Your task to perform on an android device: toggle data saver in the chrome app Image 0: 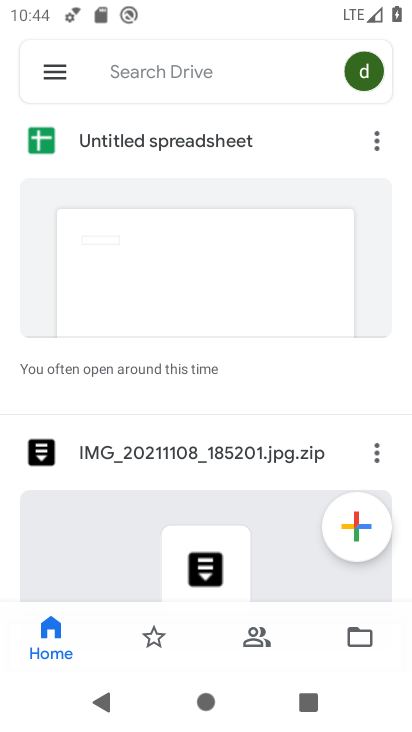
Step 0: press home button
Your task to perform on an android device: toggle data saver in the chrome app Image 1: 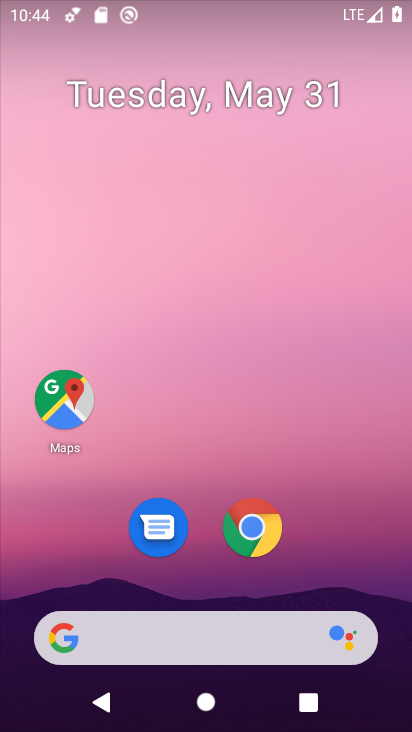
Step 1: click (241, 529)
Your task to perform on an android device: toggle data saver in the chrome app Image 2: 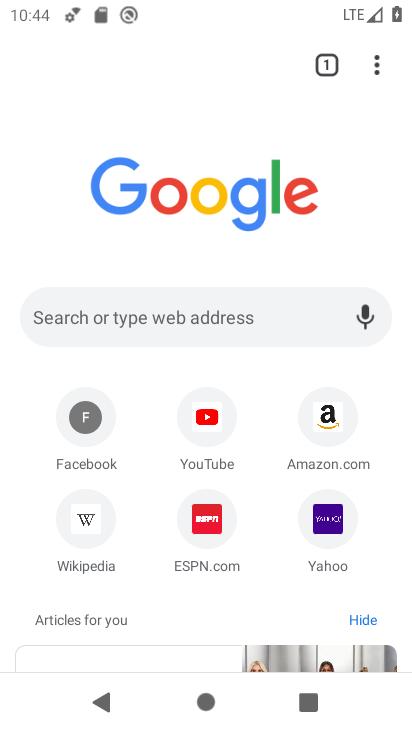
Step 2: click (378, 69)
Your task to perform on an android device: toggle data saver in the chrome app Image 3: 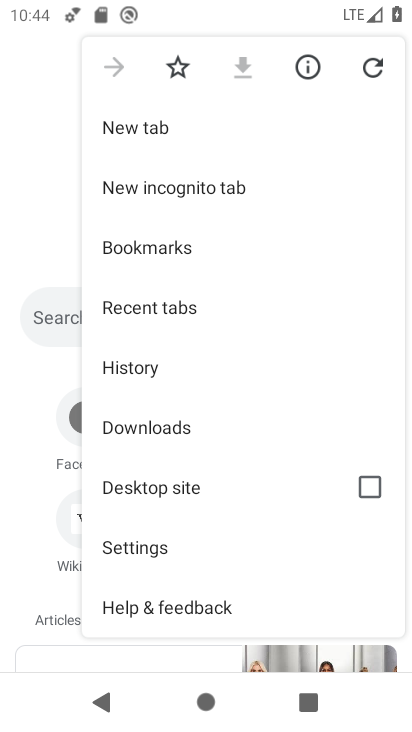
Step 3: click (146, 545)
Your task to perform on an android device: toggle data saver in the chrome app Image 4: 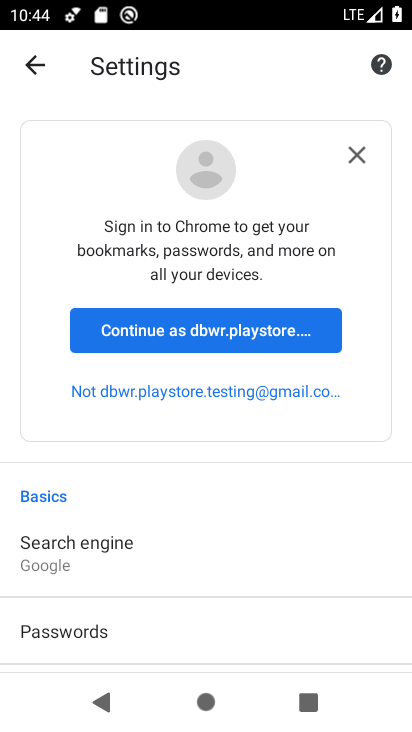
Step 4: drag from (149, 535) to (79, 41)
Your task to perform on an android device: toggle data saver in the chrome app Image 5: 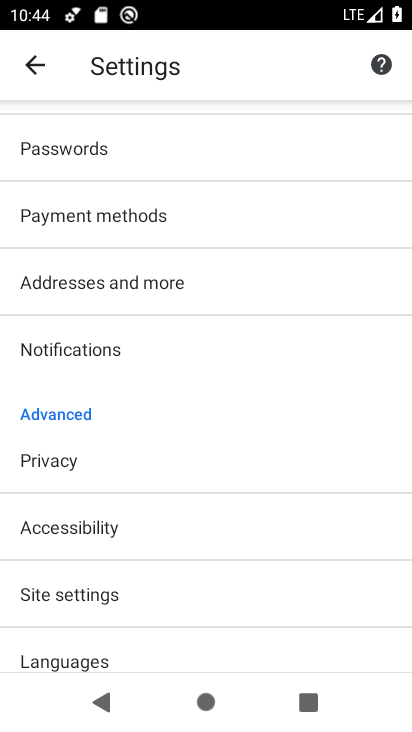
Step 5: drag from (218, 565) to (220, 448)
Your task to perform on an android device: toggle data saver in the chrome app Image 6: 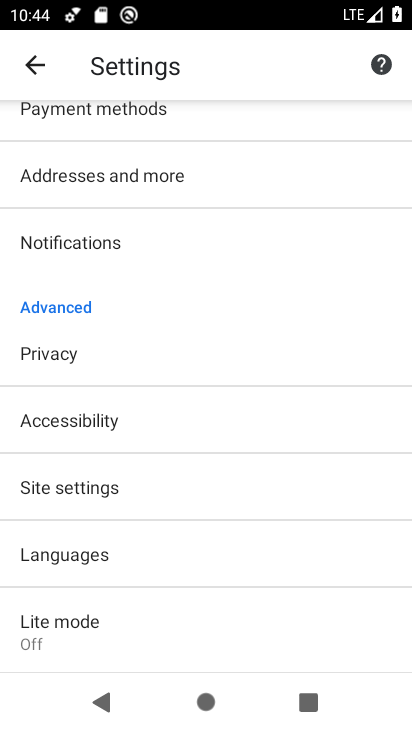
Step 6: click (80, 615)
Your task to perform on an android device: toggle data saver in the chrome app Image 7: 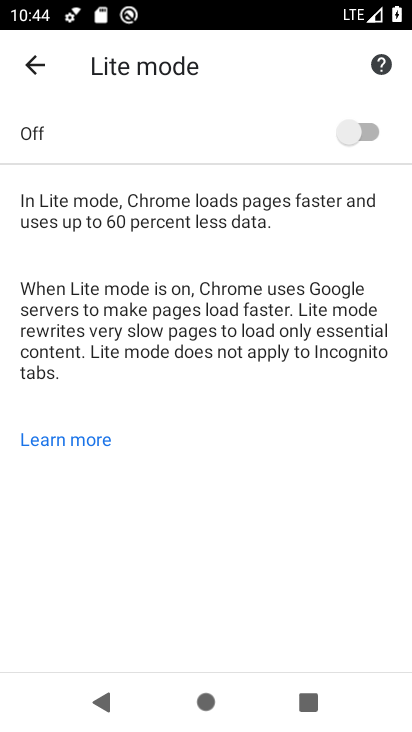
Step 7: click (341, 130)
Your task to perform on an android device: toggle data saver in the chrome app Image 8: 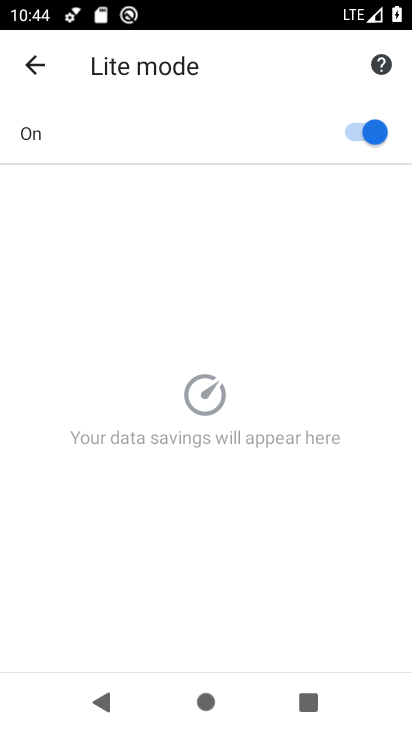
Step 8: task complete